Your task to perform on an android device: clear all cookies in the chrome app Image 0: 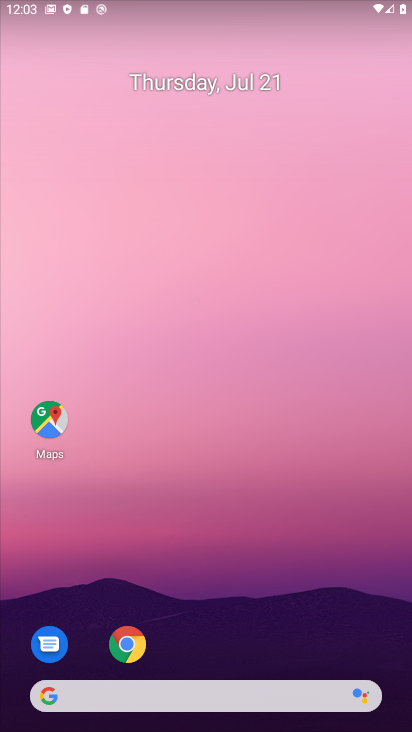
Step 0: drag from (207, 666) to (374, 448)
Your task to perform on an android device: clear all cookies in the chrome app Image 1: 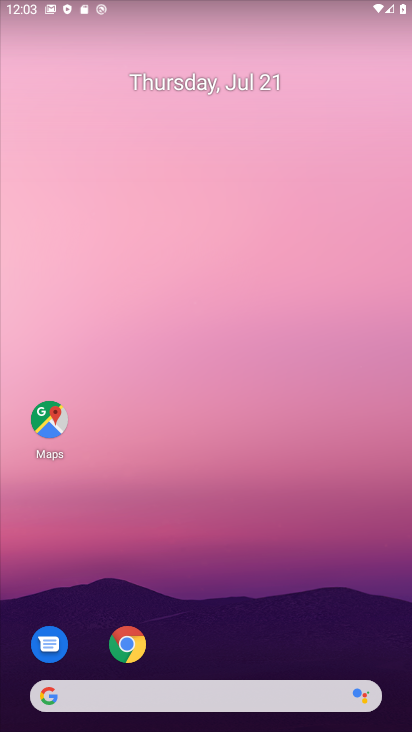
Step 1: drag from (236, 654) to (152, 64)
Your task to perform on an android device: clear all cookies in the chrome app Image 2: 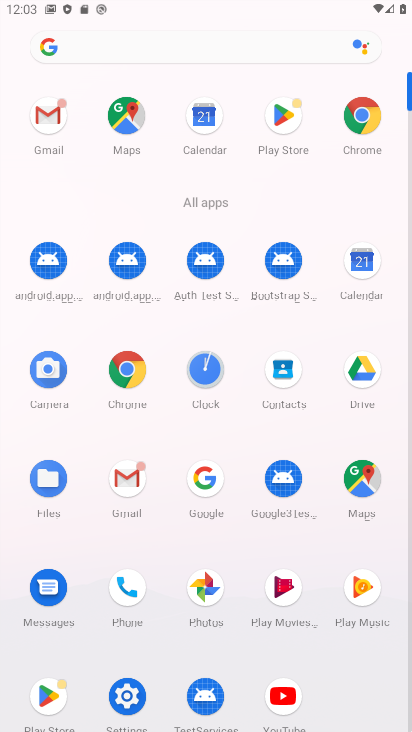
Step 2: click (360, 118)
Your task to perform on an android device: clear all cookies in the chrome app Image 3: 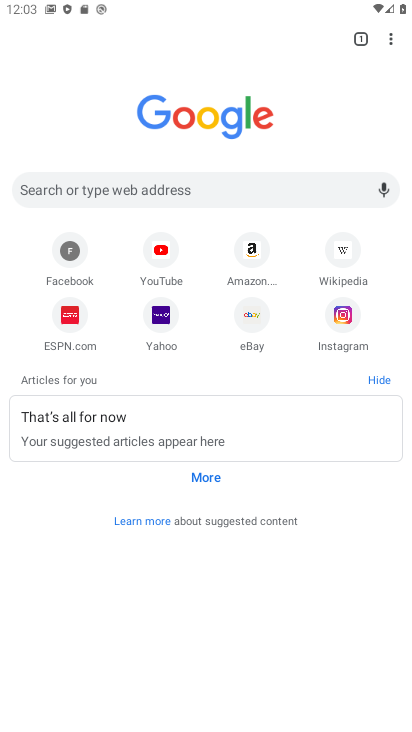
Step 3: click (388, 45)
Your task to perform on an android device: clear all cookies in the chrome app Image 4: 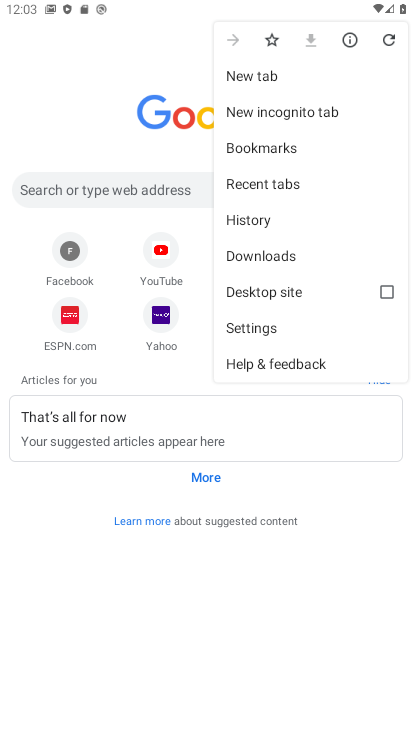
Step 4: click (242, 221)
Your task to perform on an android device: clear all cookies in the chrome app Image 5: 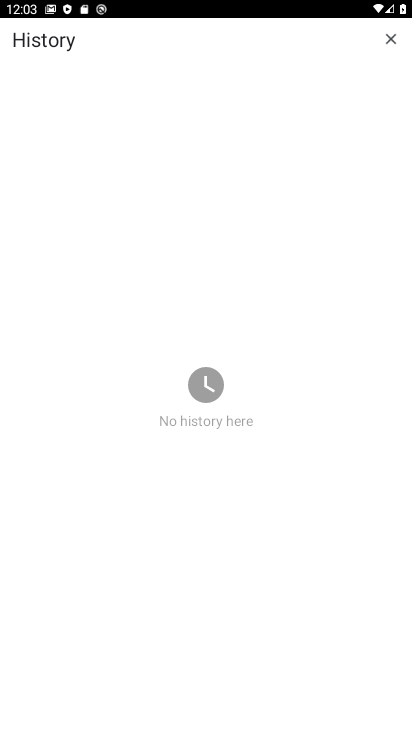
Step 5: task complete